Your task to perform on an android device: Check the weather Image 0: 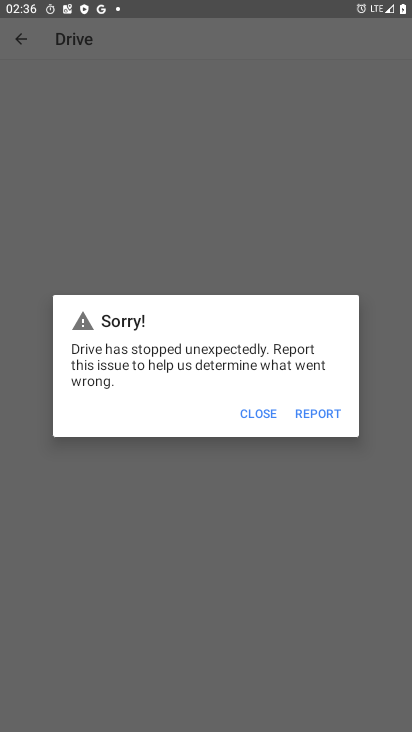
Step 0: press home button
Your task to perform on an android device: Check the weather Image 1: 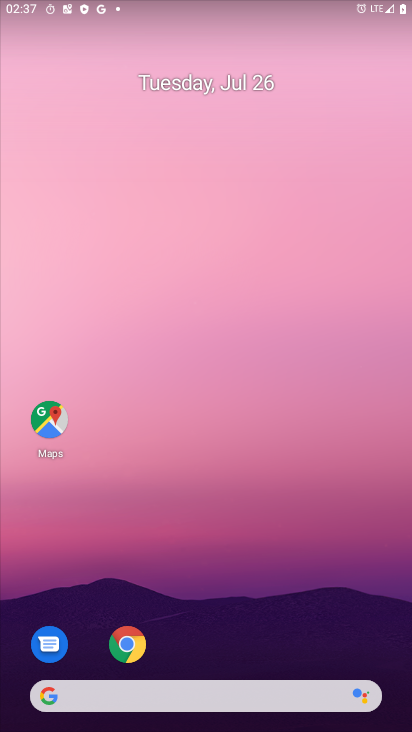
Step 1: click (156, 695)
Your task to perform on an android device: Check the weather Image 2: 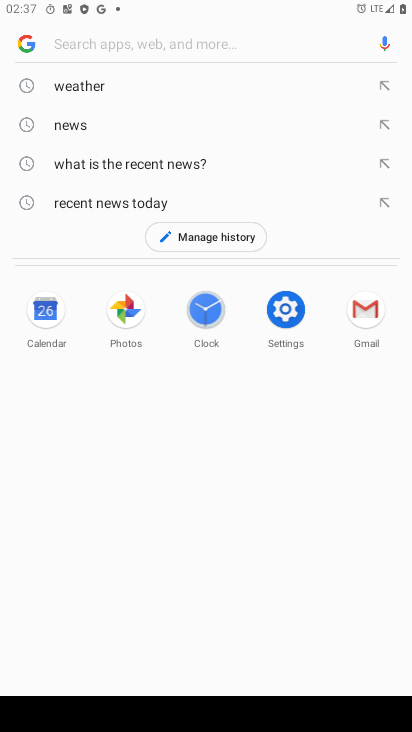
Step 2: click (78, 87)
Your task to perform on an android device: Check the weather Image 3: 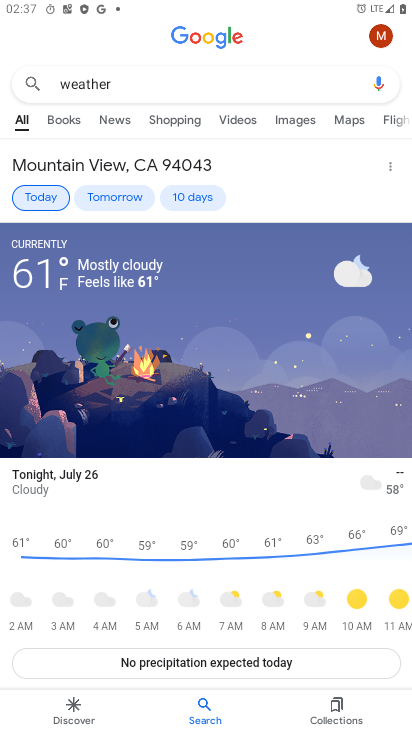
Step 3: task complete